Your task to perform on an android device: check battery use Image 0: 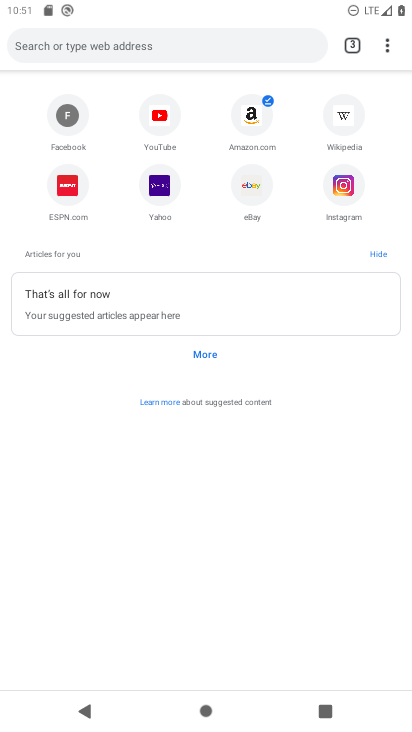
Step 0: press home button
Your task to perform on an android device: check battery use Image 1: 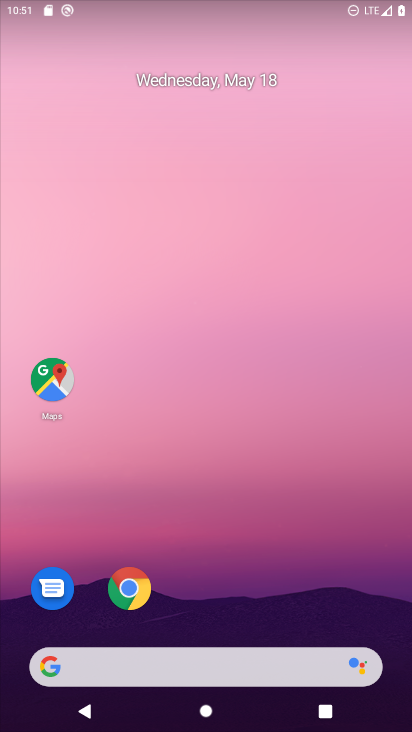
Step 1: drag from (240, 582) to (229, 40)
Your task to perform on an android device: check battery use Image 2: 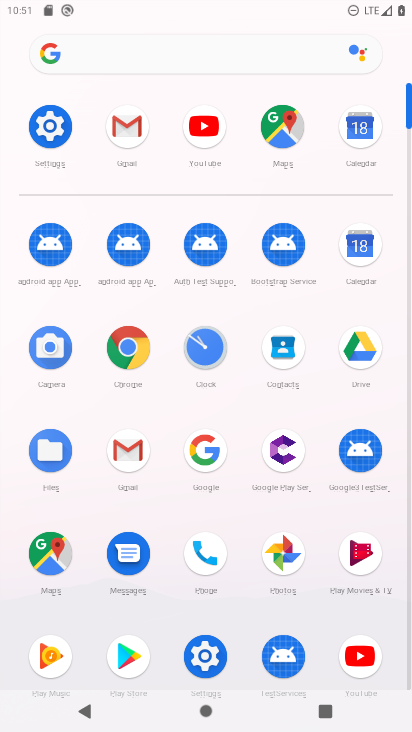
Step 2: click (47, 134)
Your task to perform on an android device: check battery use Image 3: 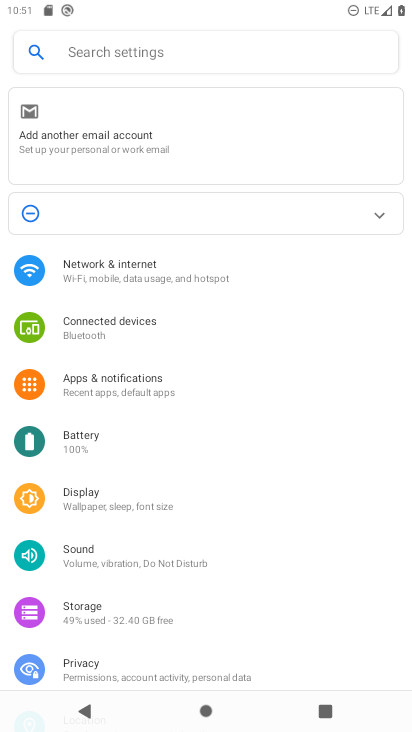
Step 3: click (86, 442)
Your task to perform on an android device: check battery use Image 4: 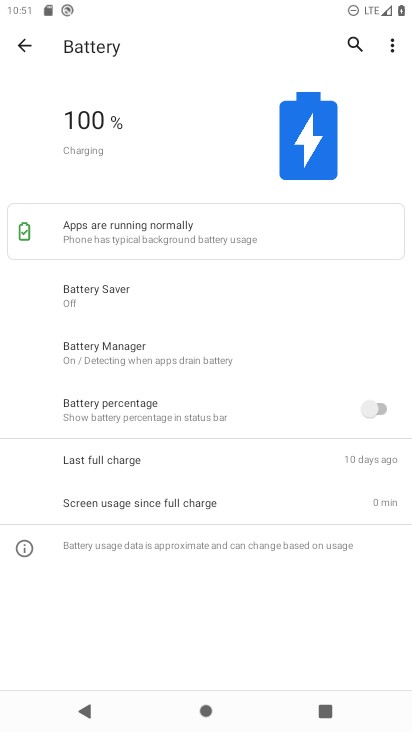
Step 4: click (394, 44)
Your task to perform on an android device: check battery use Image 5: 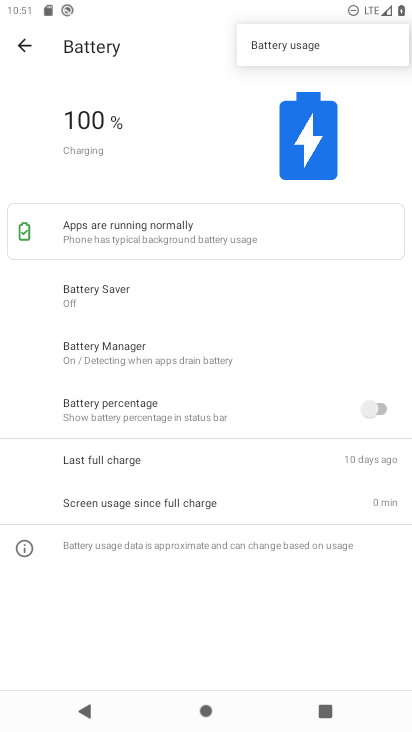
Step 5: click (303, 51)
Your task to perform on an android device: check battery use Image 6: 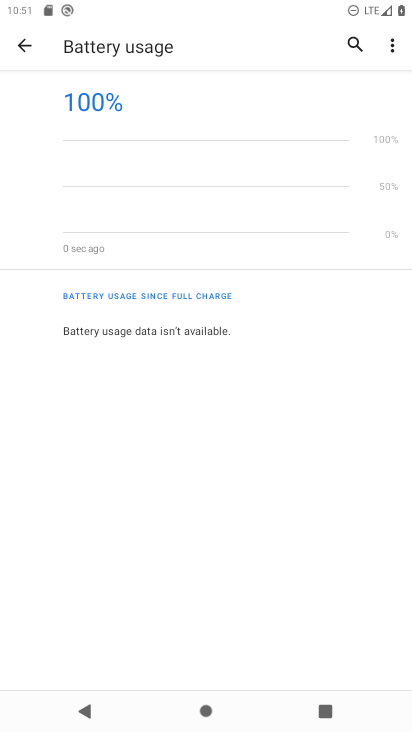
Step 6: task complete